Your task to perform on an android device: Open eBay Image 0: 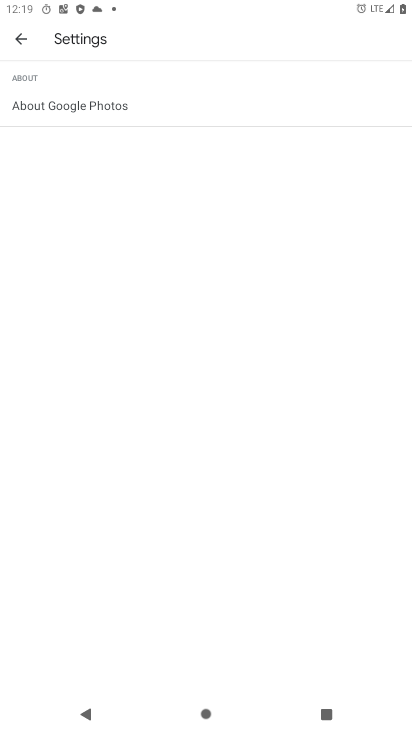
Step 0: press home button
Your task to perform on an android device: Open eBay Image 1: 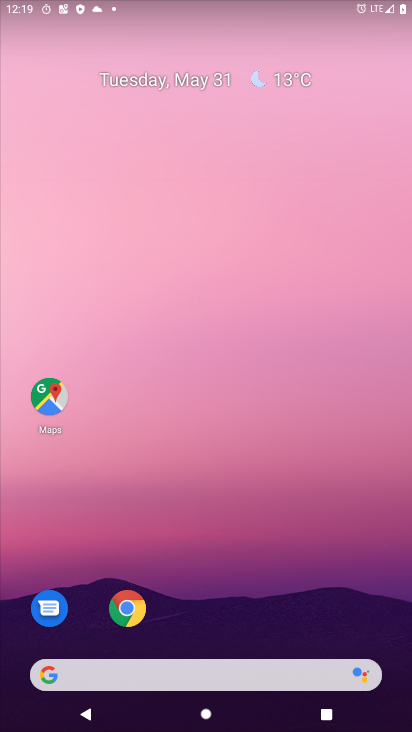
Step 1: click (130, 610)
Your task to perform on an android device: Open eBay Image 2: 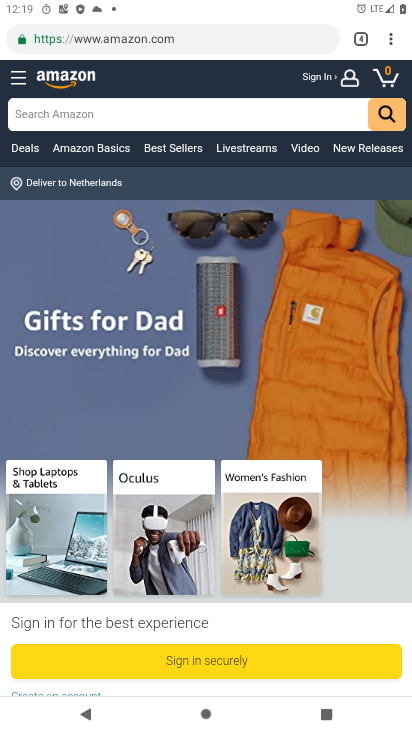
Step 2: click (96, 40)
Your task to perform on an android device: Open eBay Image 3: 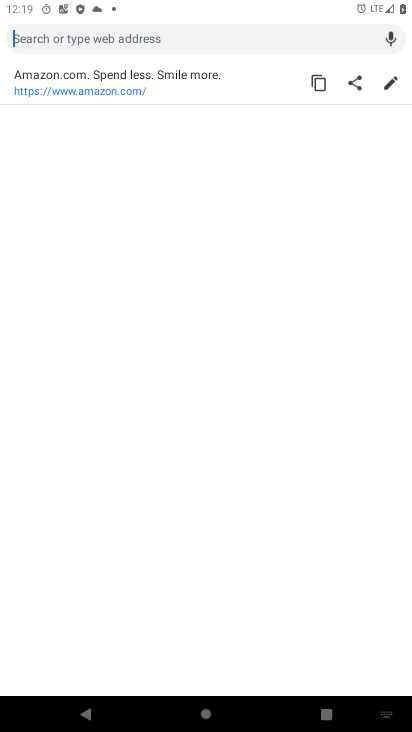
Step 3: type "ebay"
Your task to perform on an android device: Open eBay Image 4: 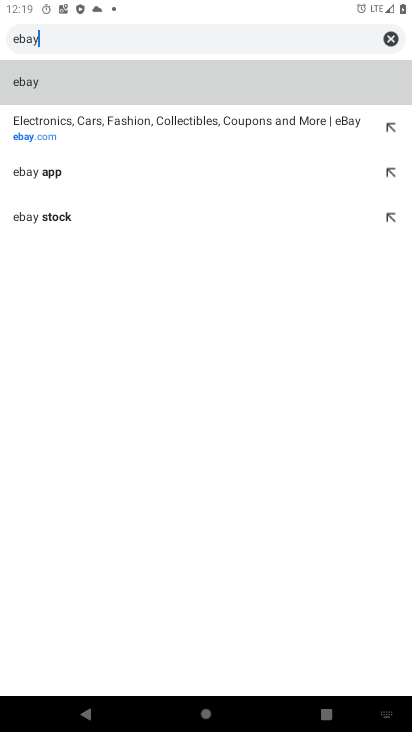
Step 4: click (18, 87)
Your task to perform on an android device: Open eBay Image 5: 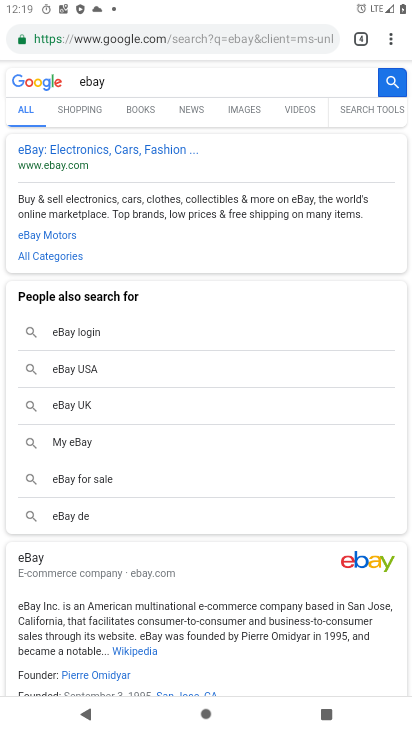
Step 5: click (44, 160)
Your task to perform on an android device: Open eBay Image 6: 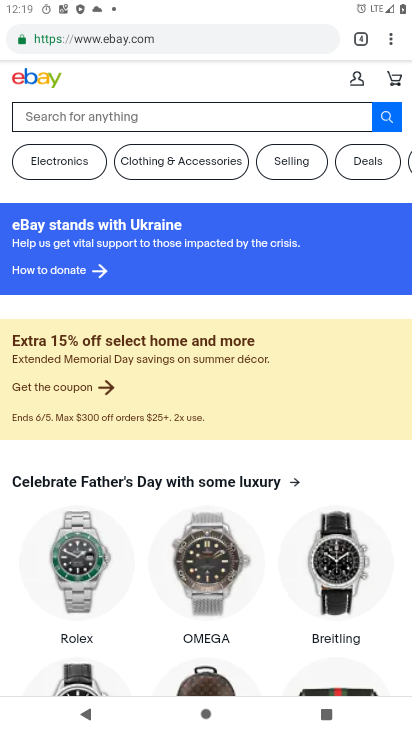
Step 6: task complete